Your task to perform on an android device: Play the latest video from the Huffington Post Image 0: 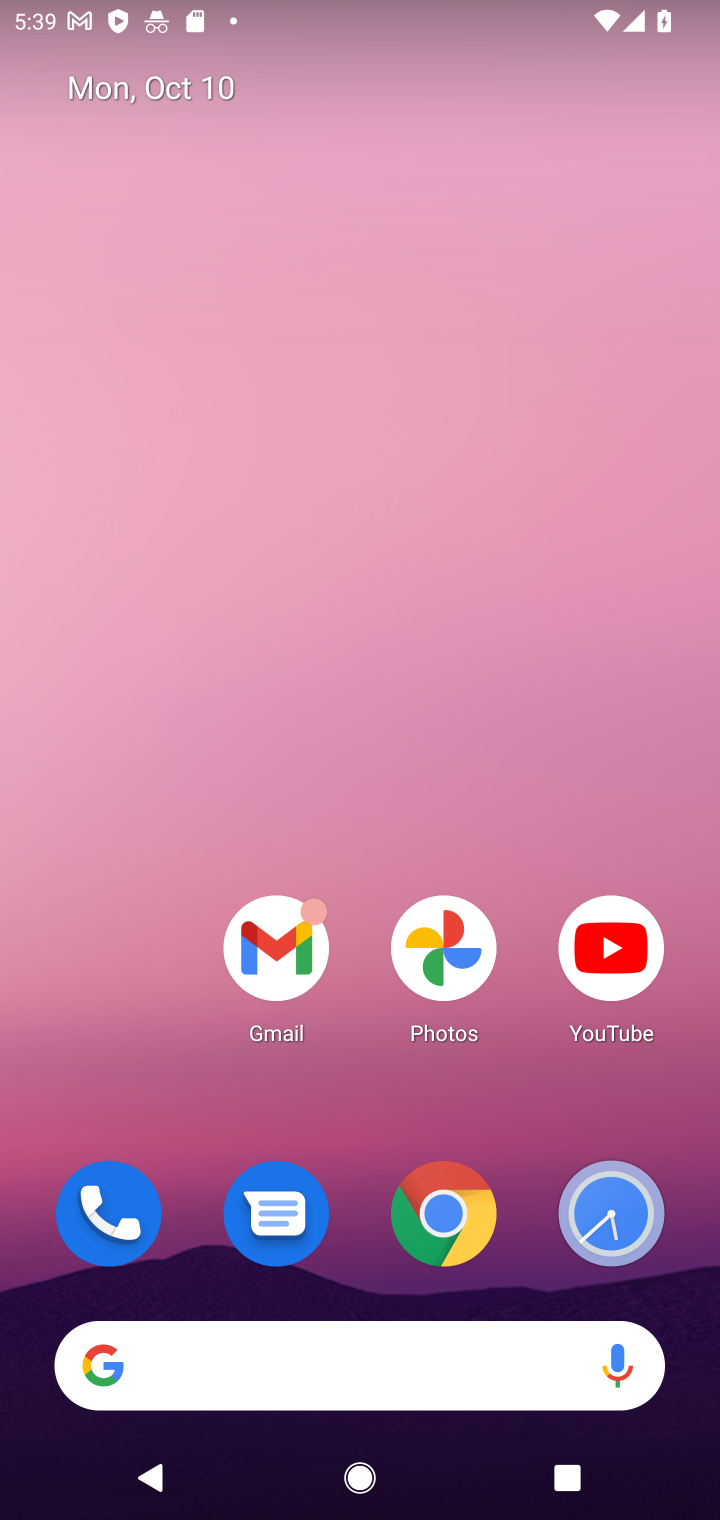
Step 0: click (613, 965)
Your task to perform on an android device: Play the latest video from the Huffington Post Image 1: 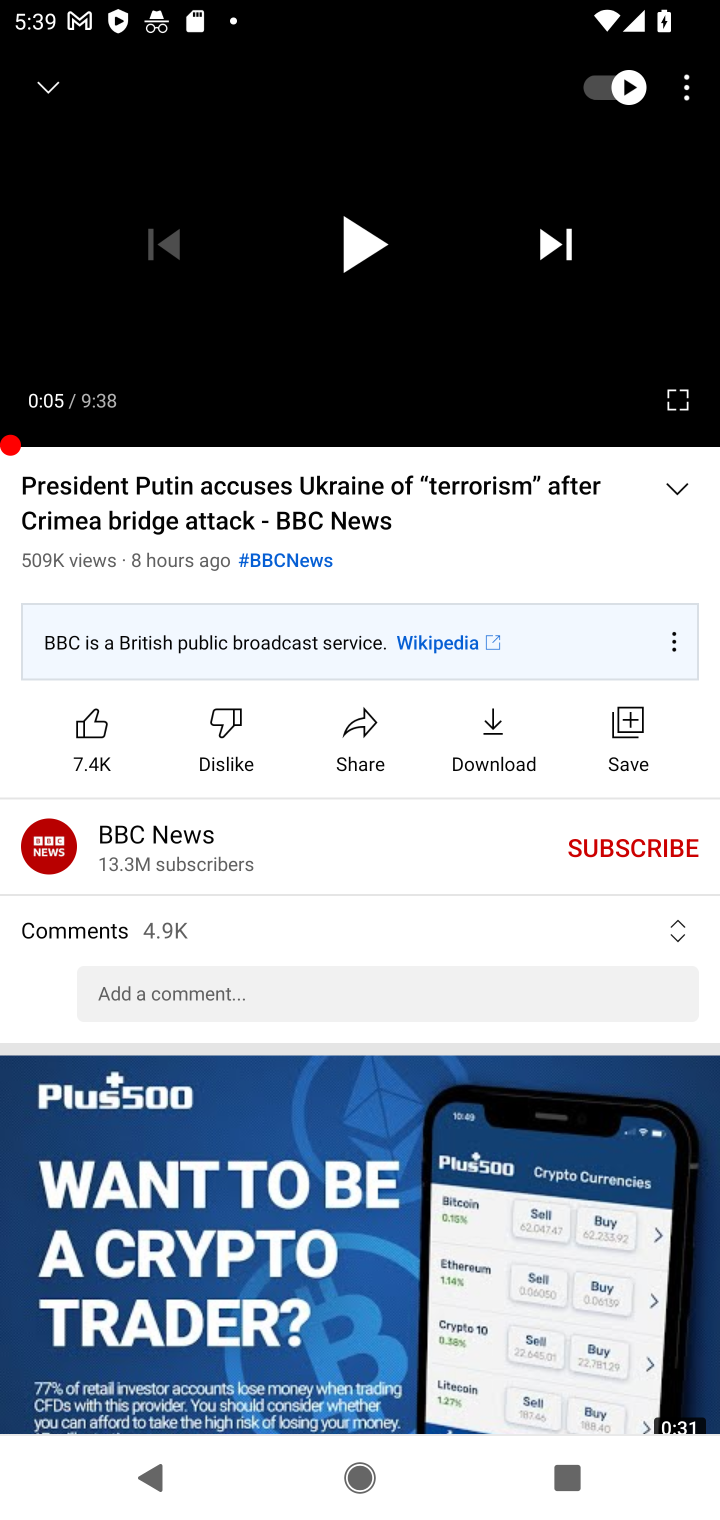
Step 1: click (57, 79)
Your task to perform on an android device: Play the latest video from the Huffington Post Image 2: 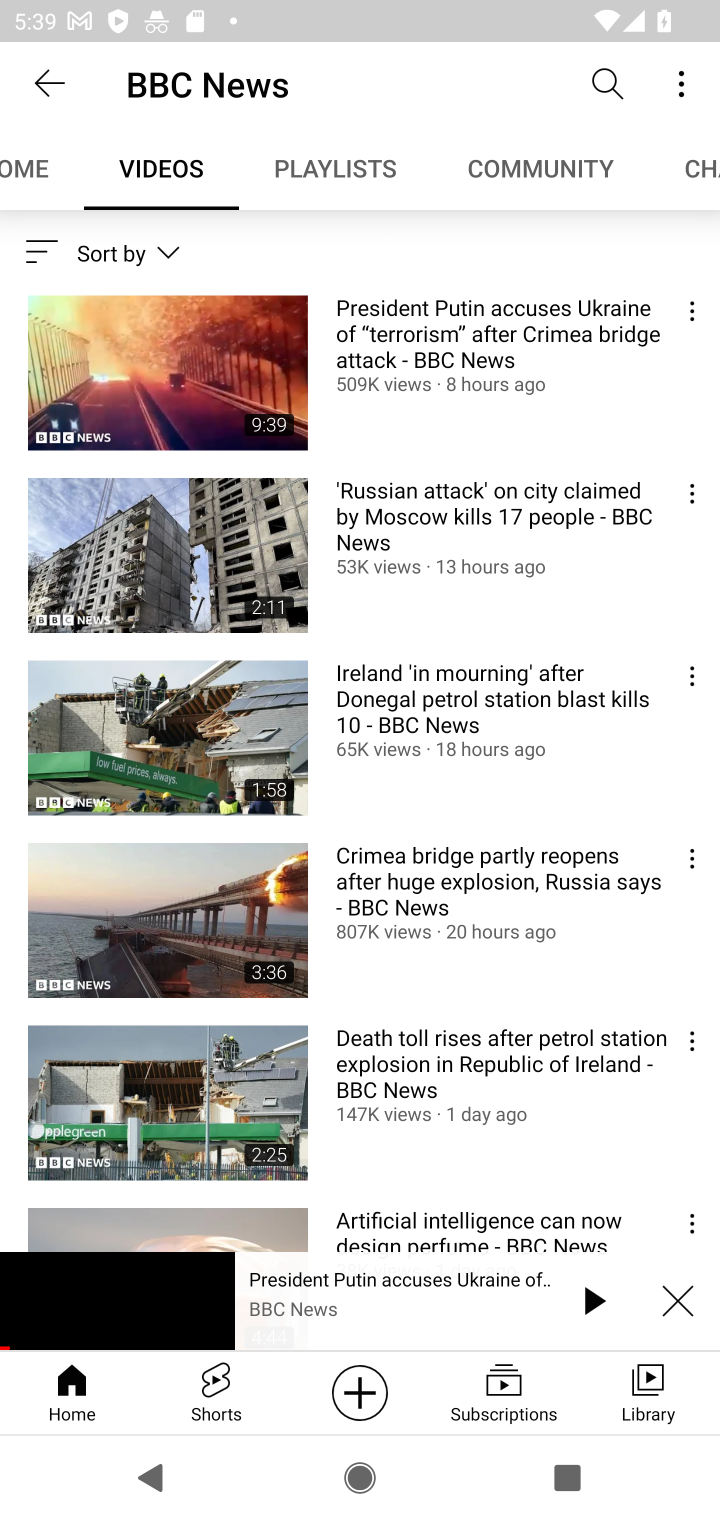
Step 2: click (618, 81)
Your task to perform on an android device: Play the latest video from the Huffington Post Image 3: 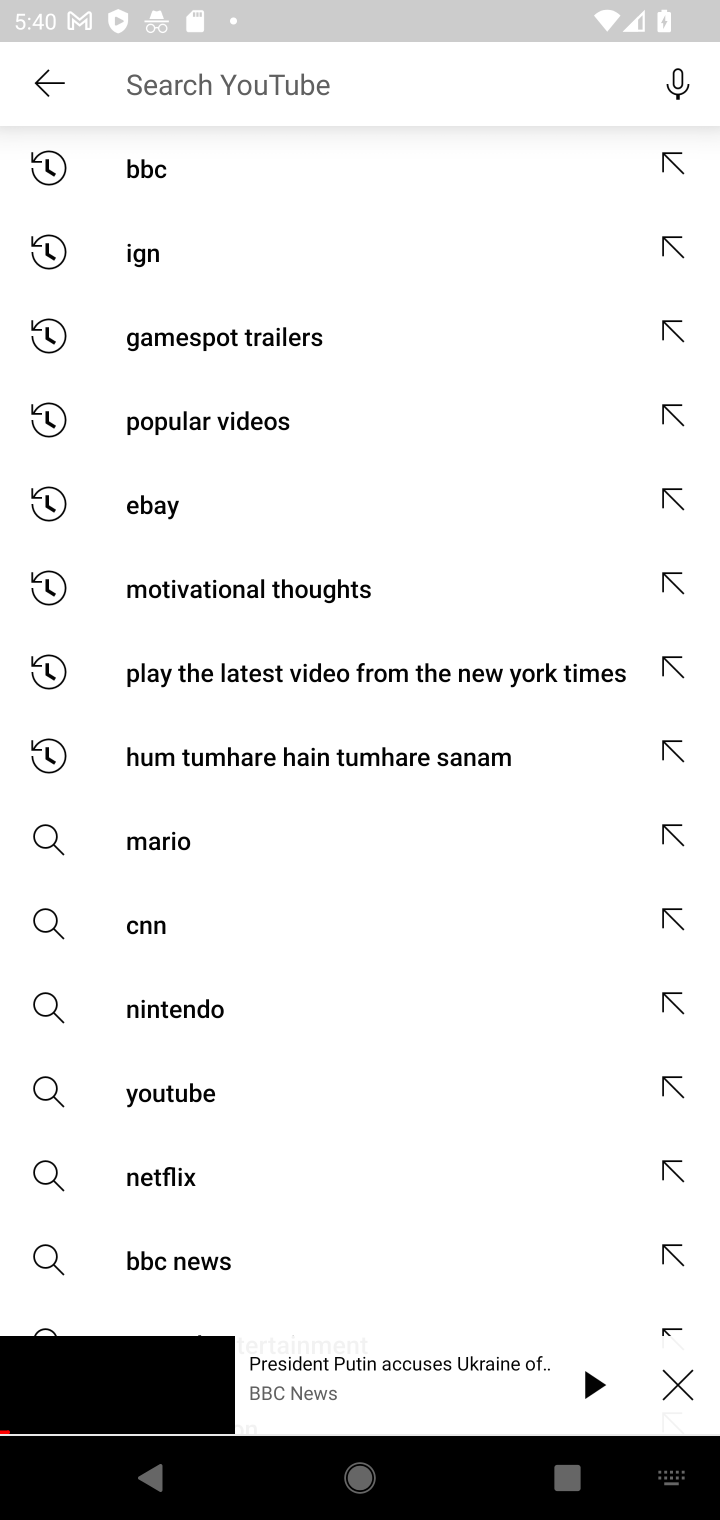
Step 3: click (337, 79)
Your task to perform on an android device: Play the latest video from the Huffington Post Image 4: 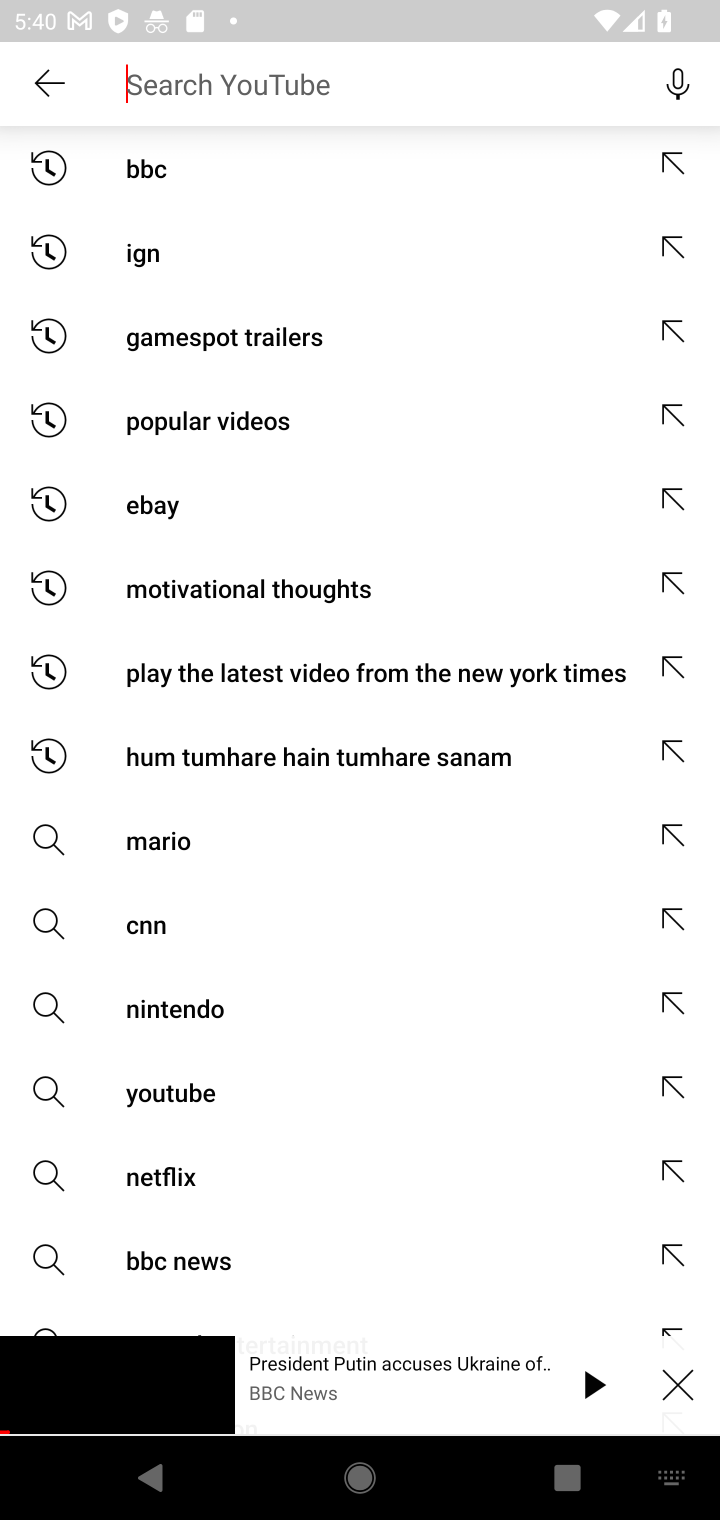
Step 4: type "Huffington Post"
Your task to perform on an android device: Play the latest video from the Huffington Post Image 5: 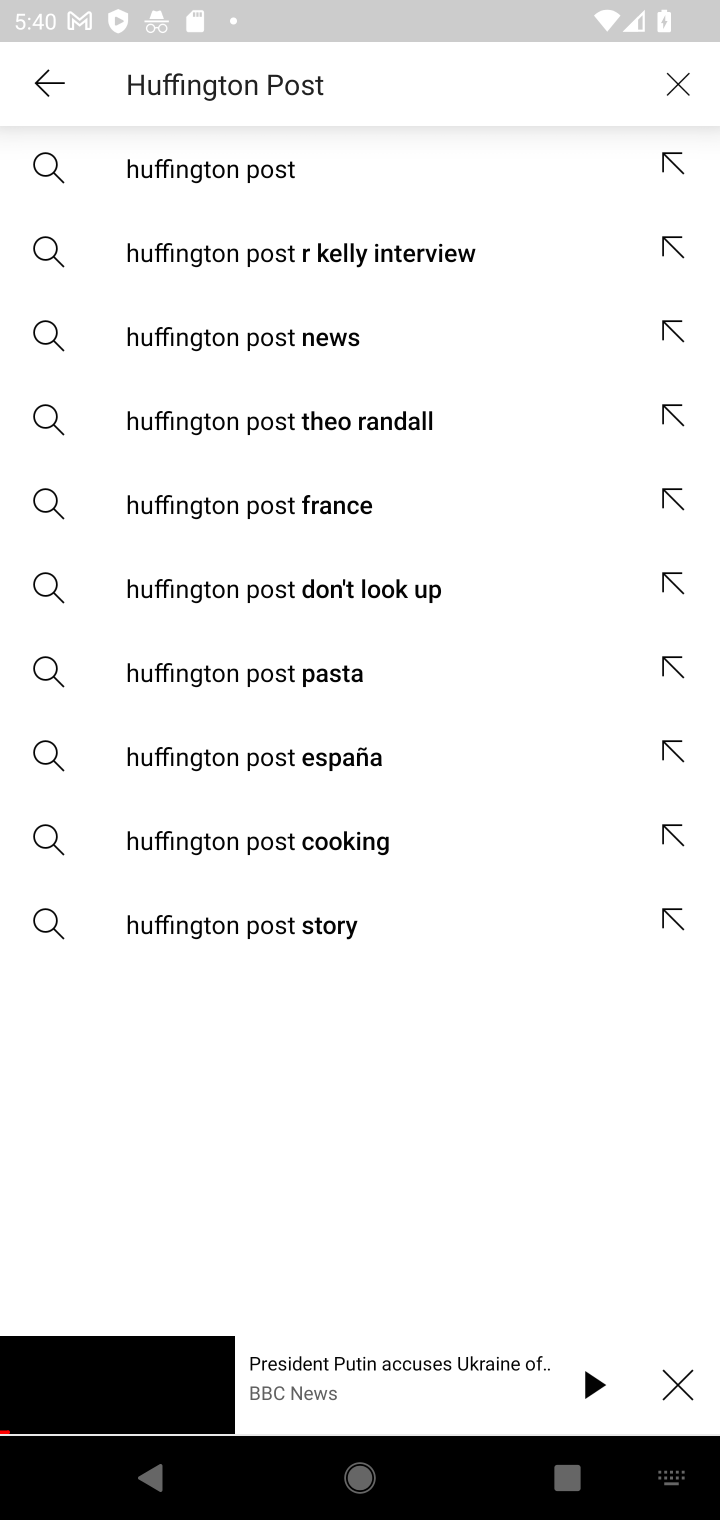
Step 5: click (209, 175)
Your task to perform on an android device: Play the latest video from the Huffington Post Image 6: 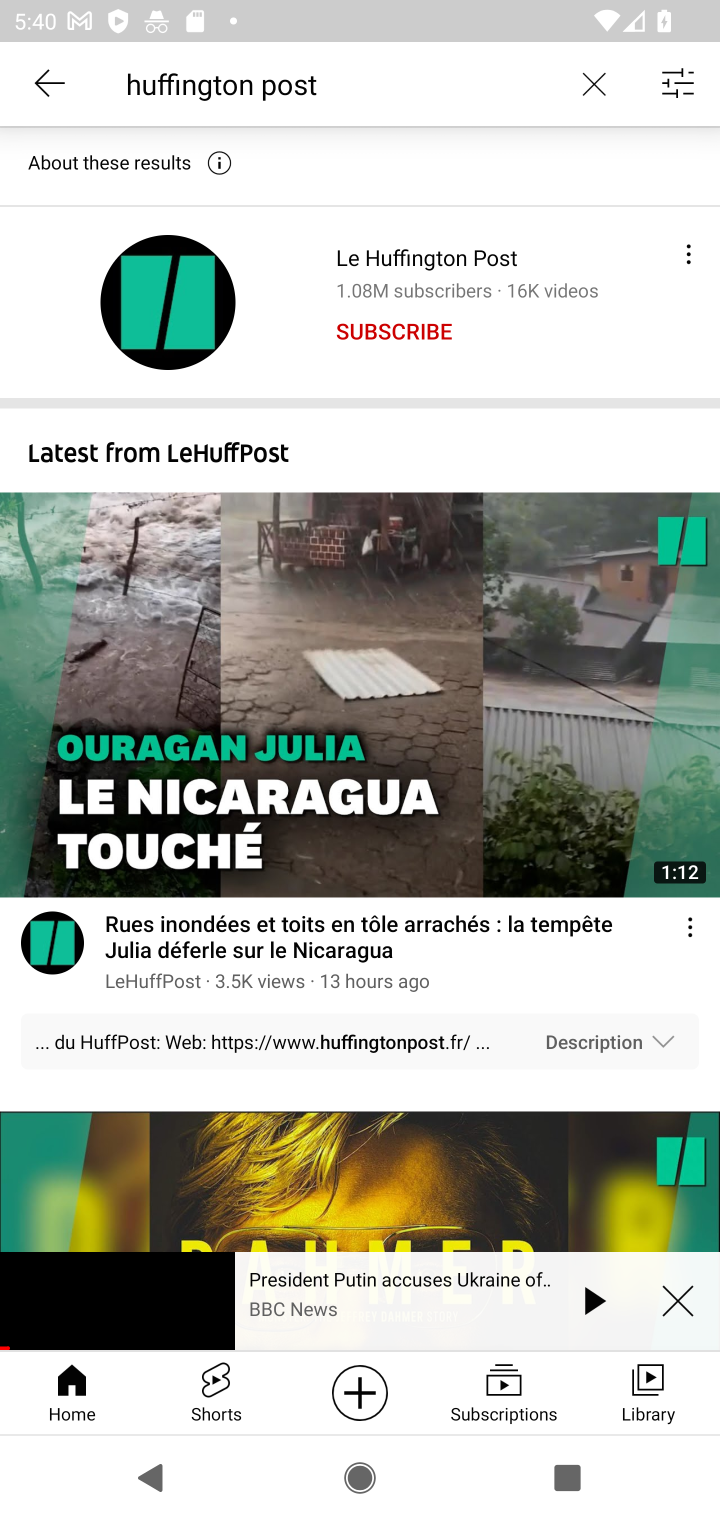
Step 6: click (429, 276)
Your task to perform on an android device: Play the latest video from the Huffington Post Image 7: 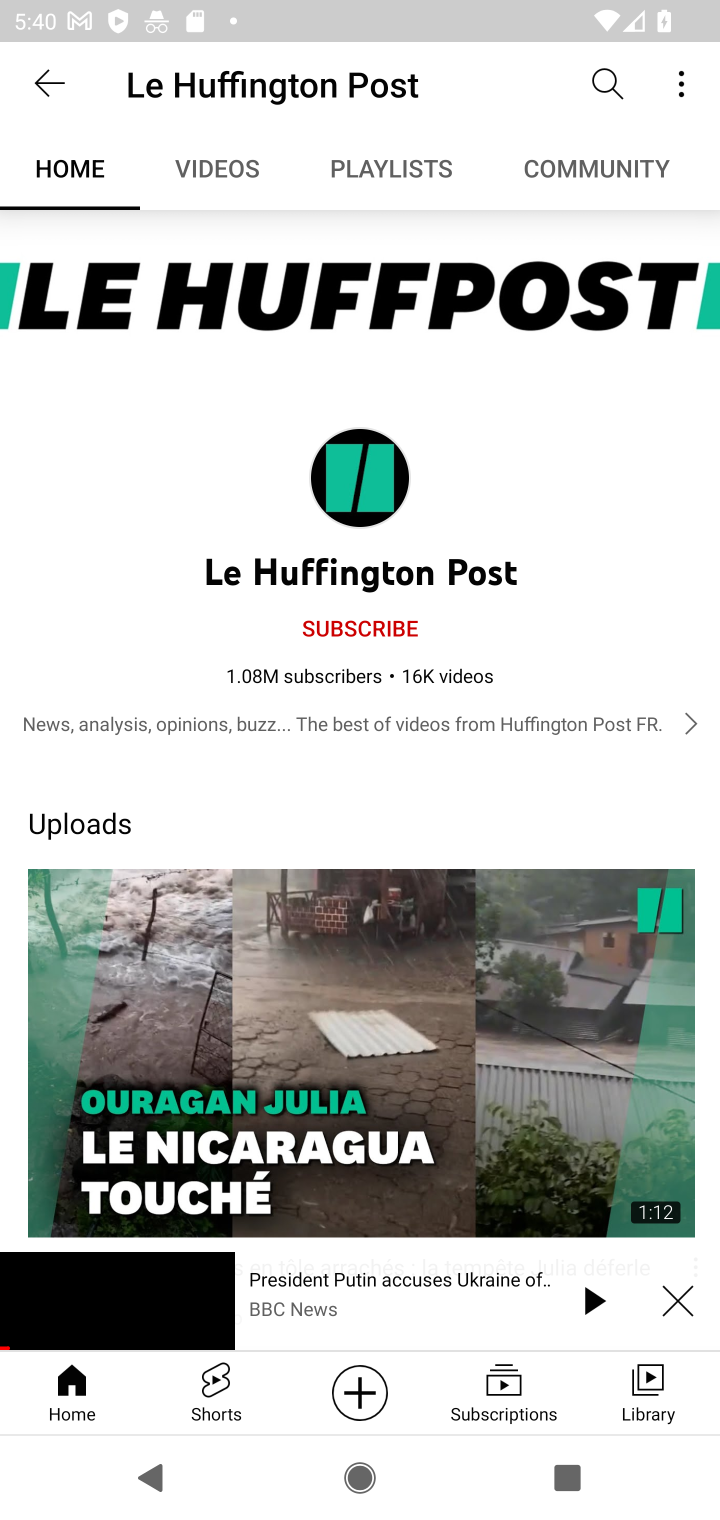
Step 7: drag from (342, 958) to (417, 525)
Your task to perform on an android device: Play the latest video from the Huffington Post Image 8: 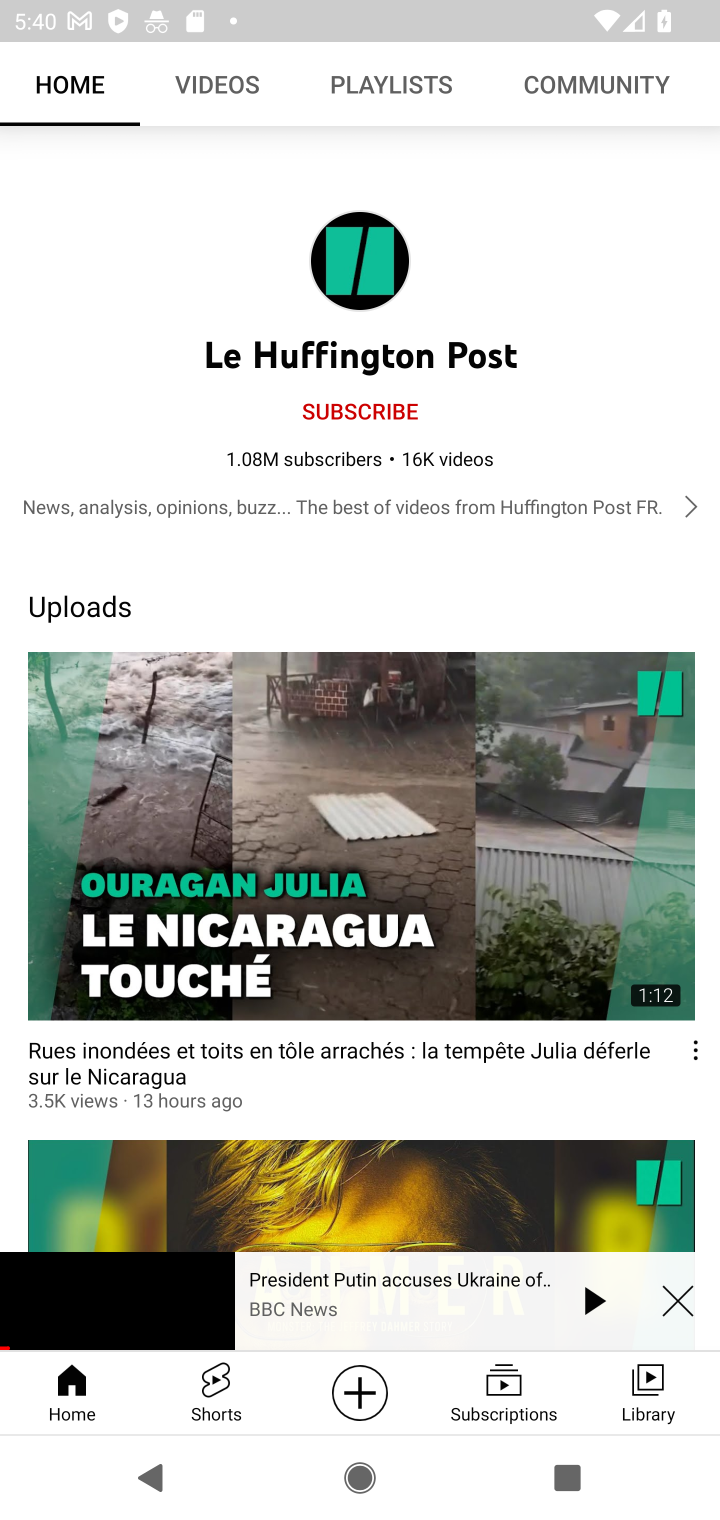
Step 8: click (382, 869)
Your task to perform on an android device: Play the latest video from the Huffington Post Image 9: 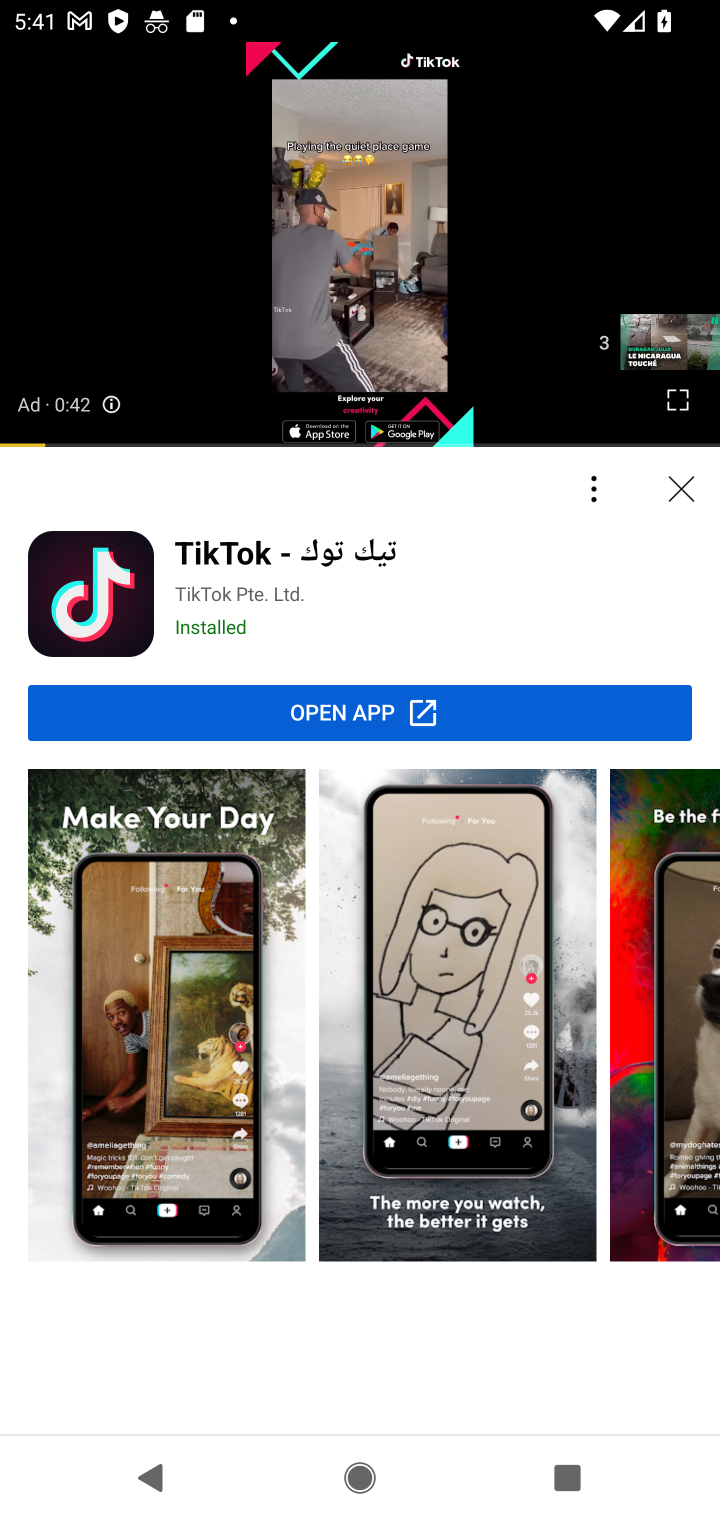
Step 9: task complete